Your task to perform on an android device: Search for vegetarian restaurants on Maps Image 0: 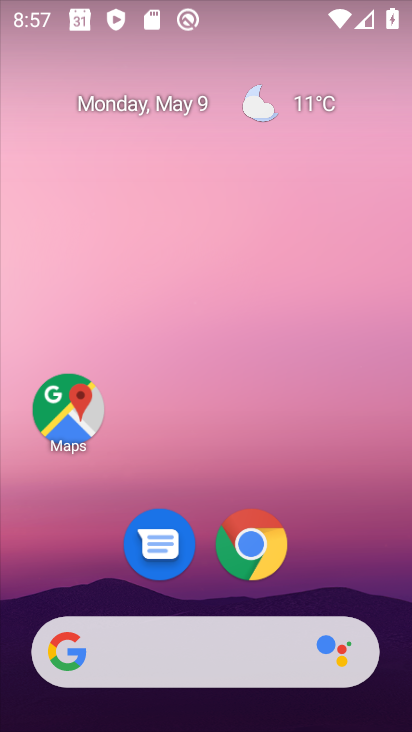
Step 0: click (65, 415)
Your task to perform on an android device: Search for vegetarian restaurants on Maps Image 1: 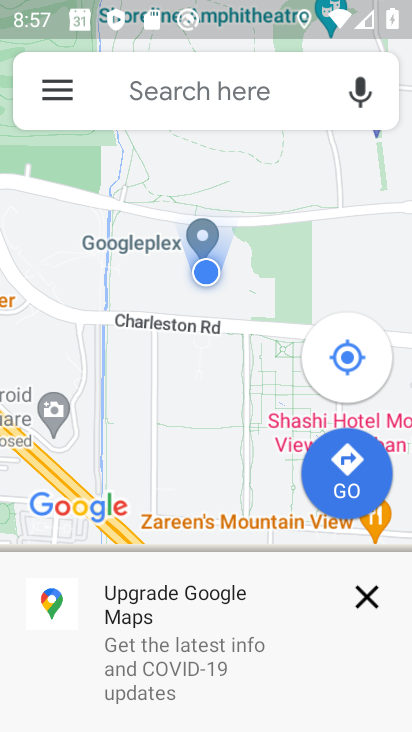
Step 1: click (166, 104)
Your task to perform on an android device: Search for vegetarian restaurants on Maps Image 2: 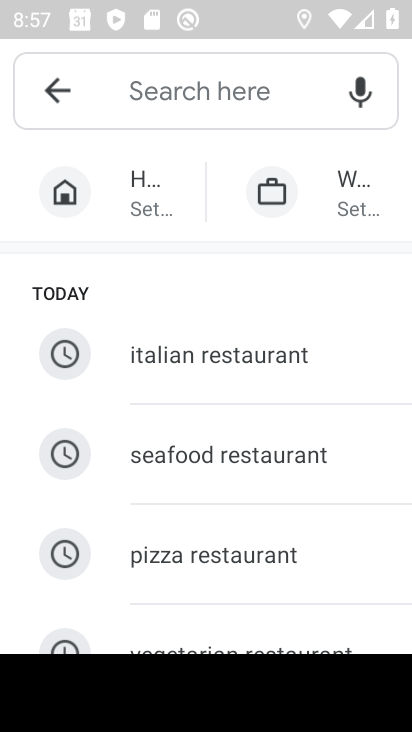
Step 2: type "vegetarian restaurants"
Your task to perform on an android device: Search for vegetarian restaurants on Maps Image 3: 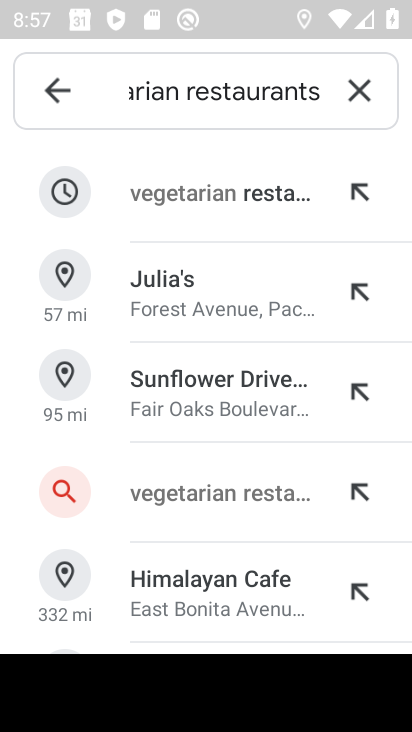
Step 3: click (184, 494)
Your task to perform on an android device: Search for vegetarian restaurants on Maps Image 4: 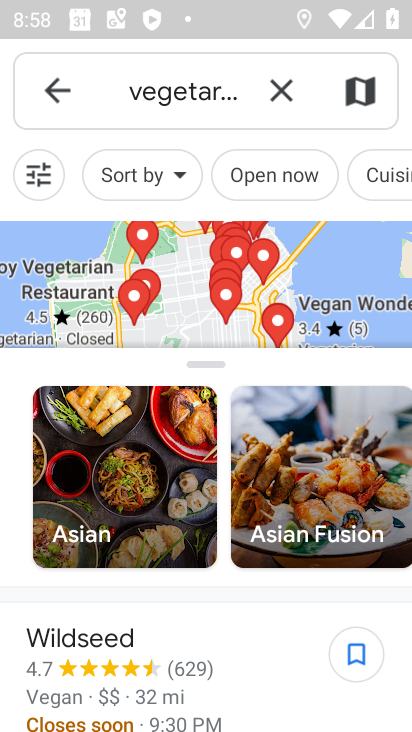
Step 4: task complete